Your task to perform on an android device: turn notification dots off Image 0: 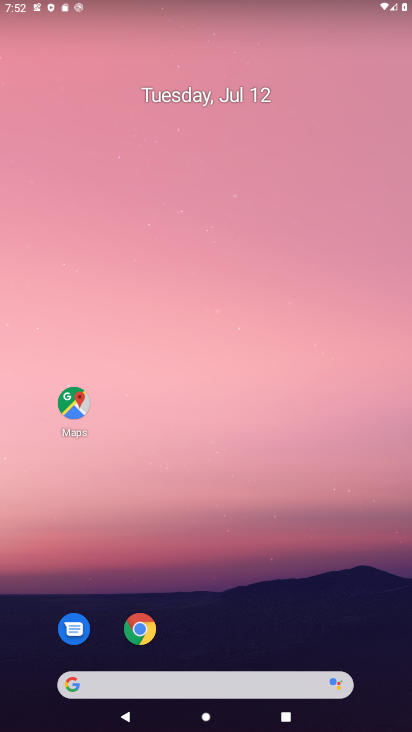
Step 0: drag from (310, 725) to (236, 229)
Your task to perform on an android device: turn notification dots off Image 1: 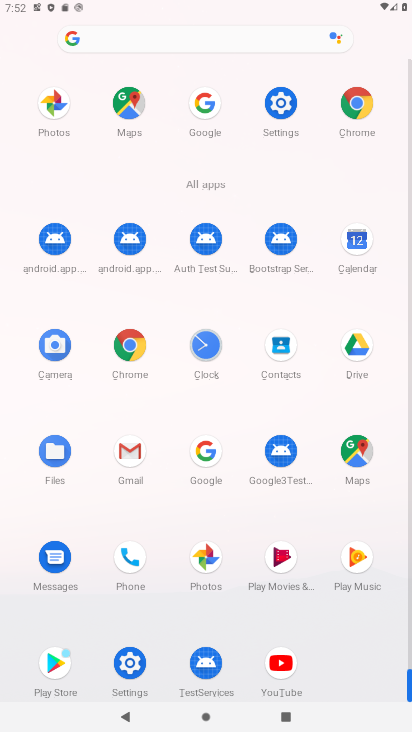
Step 1: click (277, 101)
Your task to perform on an android device: turn notification dots off Image 2: 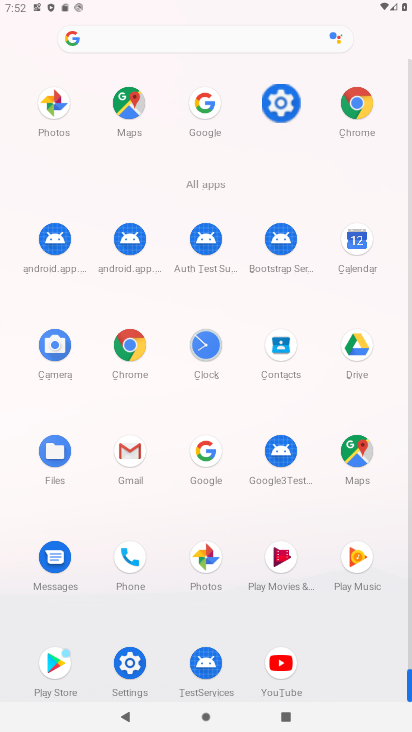
Step 2: click (280, 102)
Your task to perform on an android device: turn notification dots off Image 3: 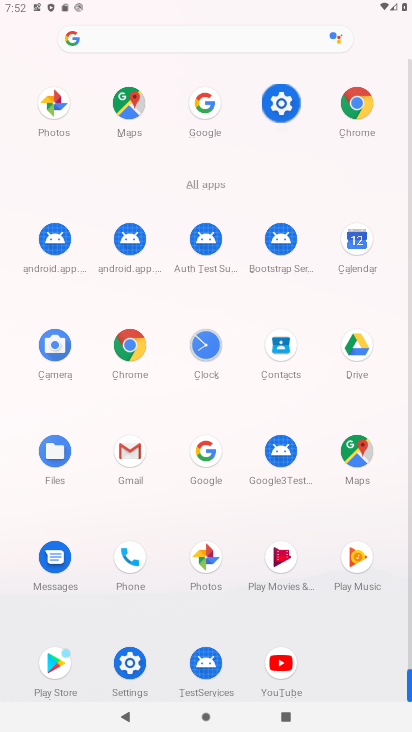
Step 3: click (281, 102)
Your task to perform on an android device: turn notification dots off Image 4: 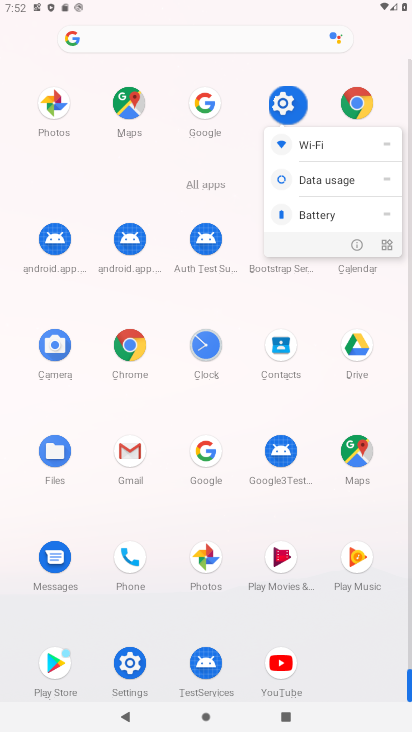
Step 4: click (288, 105)
Your task to perform on an android device: turn notification dots off Image 5: 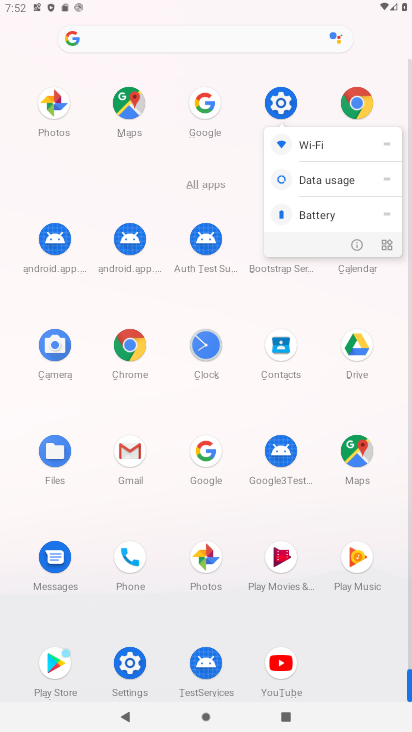
Step 5: click (288, 105)
Your task to perform on an android device: turn notification dots off Image 6: 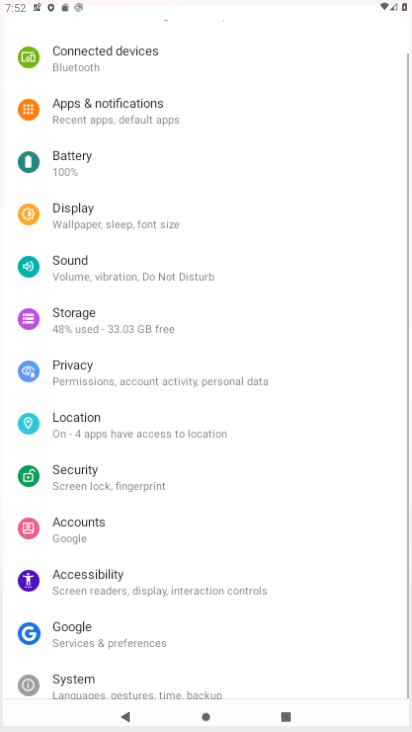
Step 6: click (286, 104)
Your task to perform on an android device: turn notification dots off Image 7: 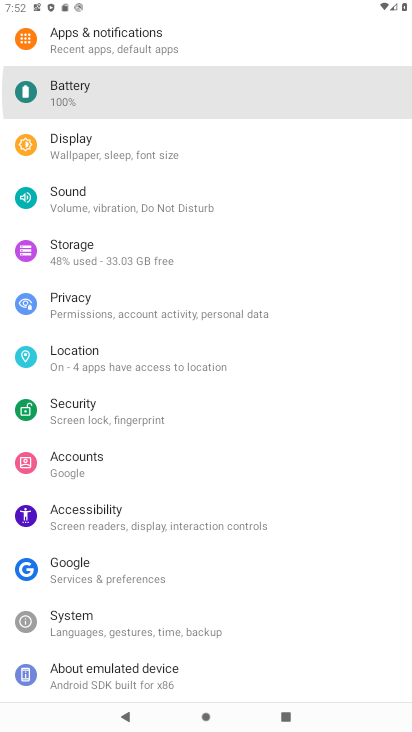
Step 7: click (285, 102)
Your task to perform on an android device: turn notification dots off Image 8: 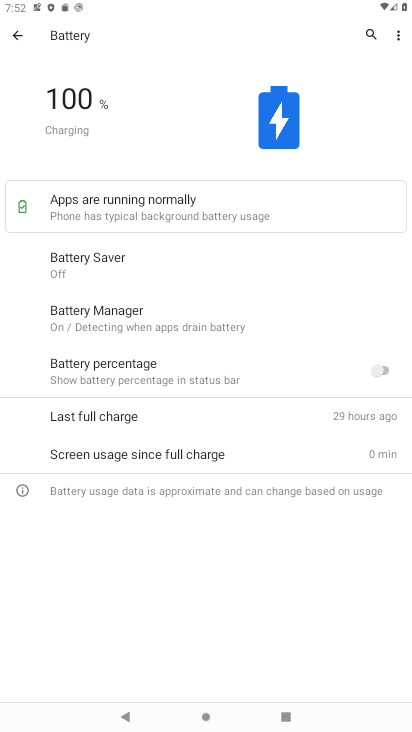
Step 8: click (24, 39)
Your task to perform on an android device: turn notification dots off Image 9: 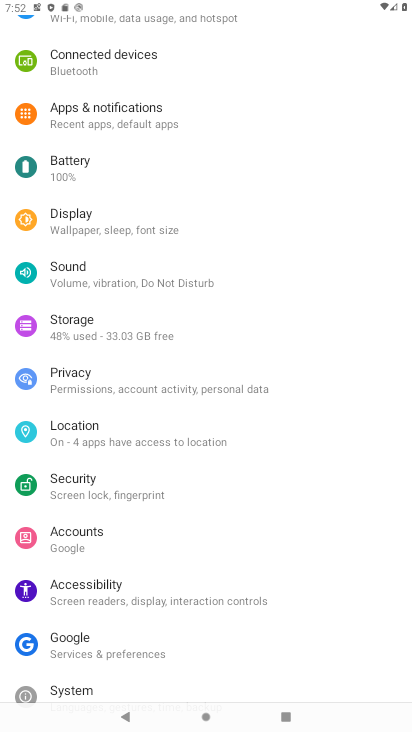
Step 9: click (128, 102)
Your task to perform on an android device: turn notification dots off Image 10: 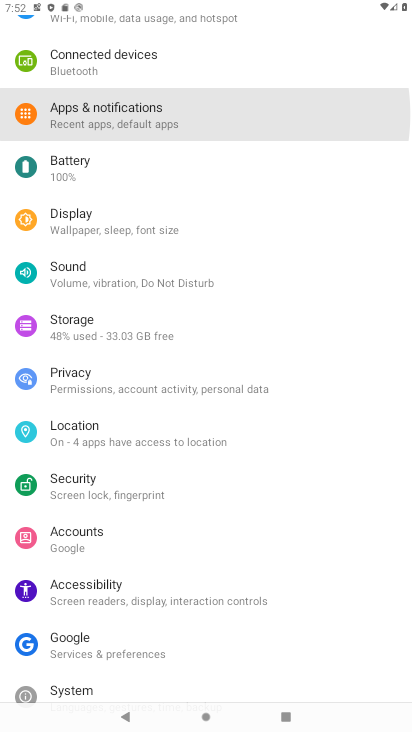
Step 10: click (129, 105)
Your task to perform on an android device: turn notification dots off Image 11: 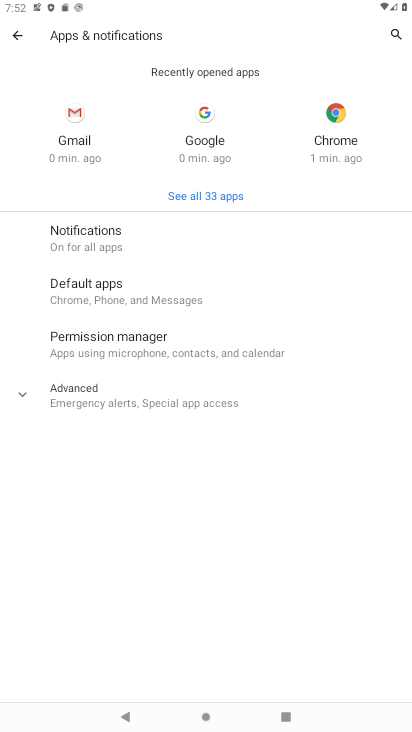
Step 11: click (78, 229)
Your task to perform on an android device: turn notification dots off Image 12: 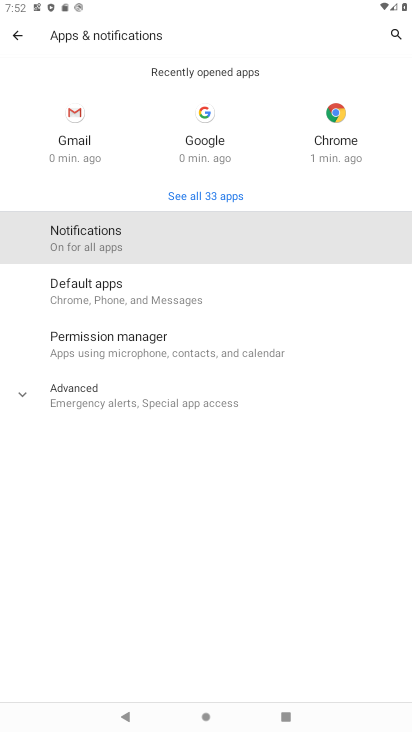
Step 12: click (78, 229)
Your task to perform on an android device: turn notification dots off Image 13: 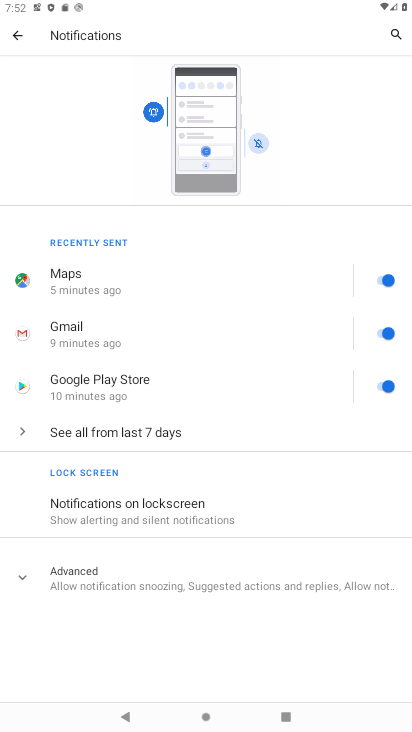
Step 13: click (77, 579)
Your task to perform on an android device: turn notification dots off Image 14: 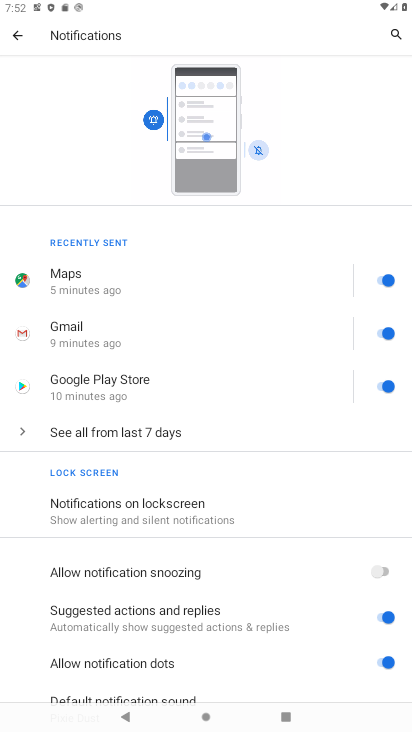
Step 14: drag from (259, 618) to (258, 305)
Your task to perform on an android device: turn notification dots off Image 15: 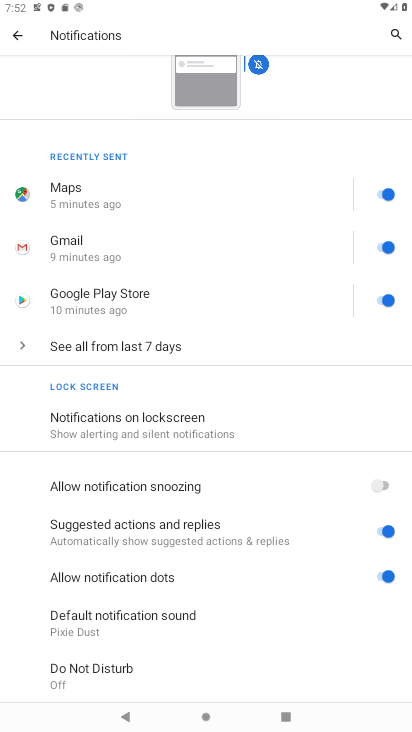
Step 15: click (390, 577)
Your task to perform on an android device: turn notification dots off Image 16: 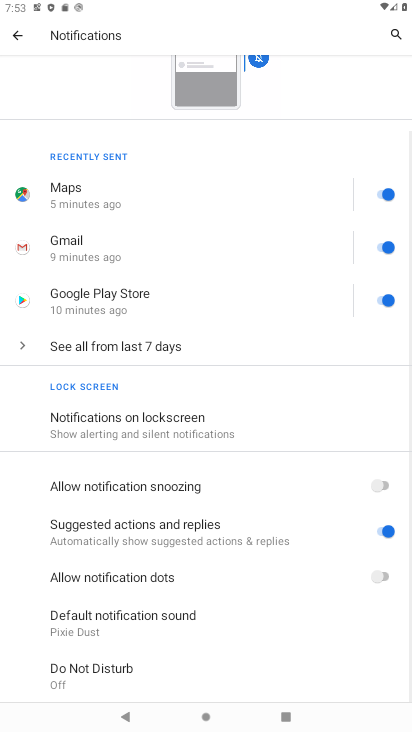
Step 16: task complete